Your task to perform on an android device: Open the Play Movies app and select the watchlist tab. Image 0: 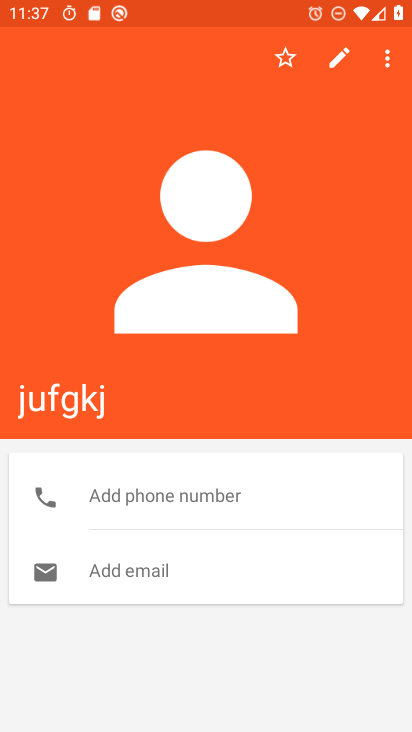
Step 0: press home button
Your task to perform on an android device: Open the Play Movies app and select the watchlist tab. Image 1: 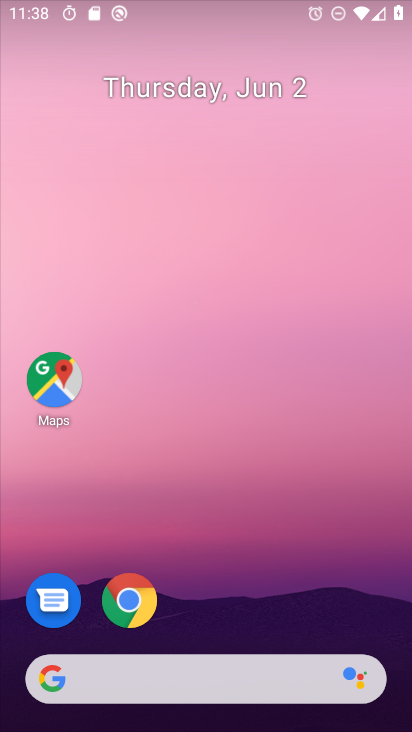
Step 1: drag from (249, 556) to (247, 108)
Your task to perform on an android device: Open the Play Movies app and select the watchlist tab. Image 2: 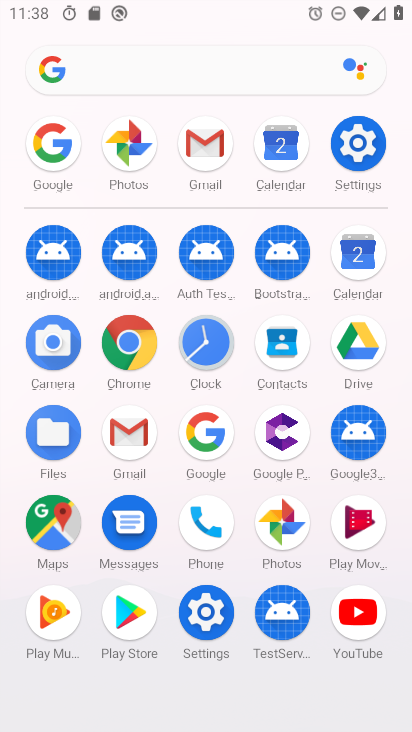
Step 2: click (359, 518)
Your task to perform on an android device: Open the Play Movies app and select the watchlist tab. Image 3: 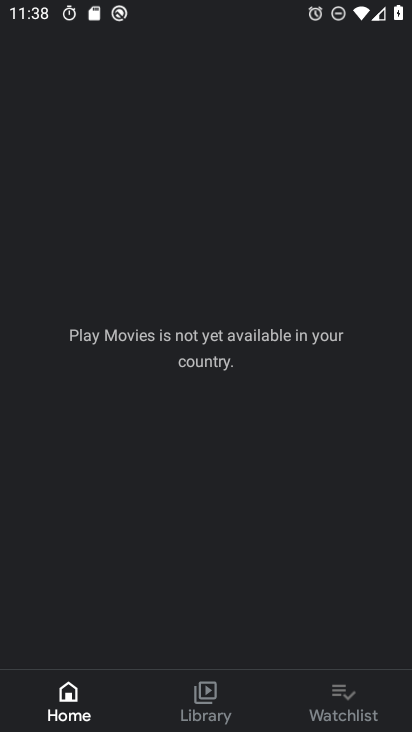
Step 3: click (328, 704)
Your task to perform on an android device: Open the Play Movies app and select the watchlist tab. Image 4: 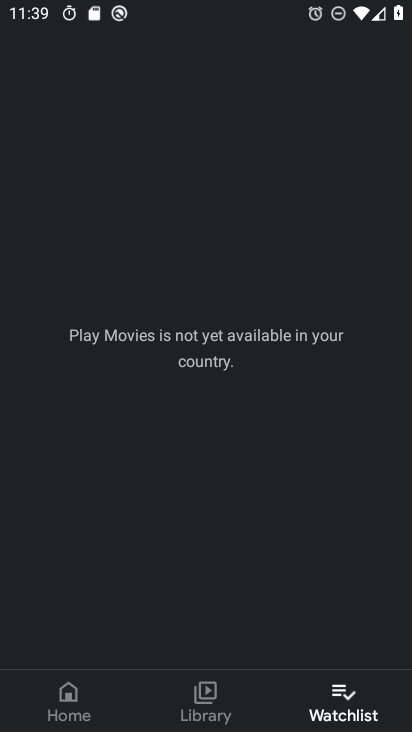
Step 4: task complete